Your task to perform on an android device: Open ESPN.com Image 0: 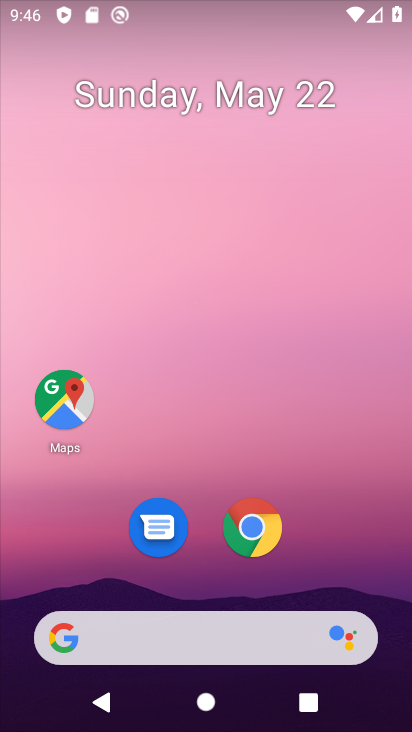
Step 0: click (260, 633)
Your task to perform on an android device: Open ESPN.com Image 1: 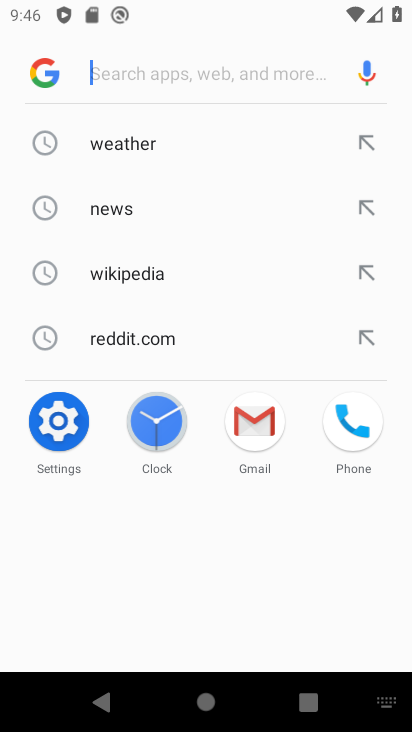
Step 1: type "espn.com"
Your task to perform on an android device: Open ESPN.com Image 2: 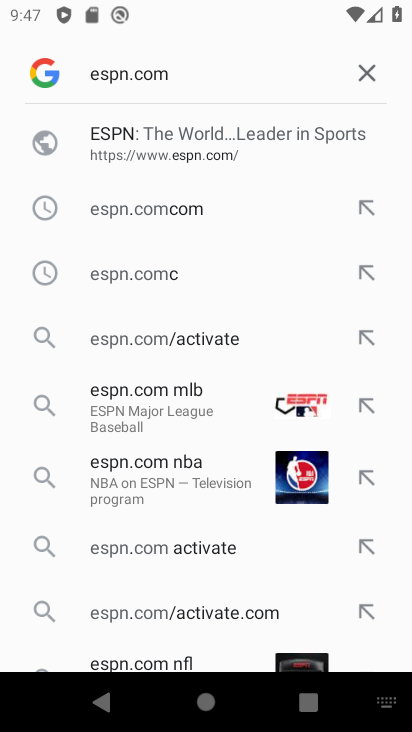
Step 2: click (132, 147)
Your task to perform on an android device: Open ESPN.com Image 3: 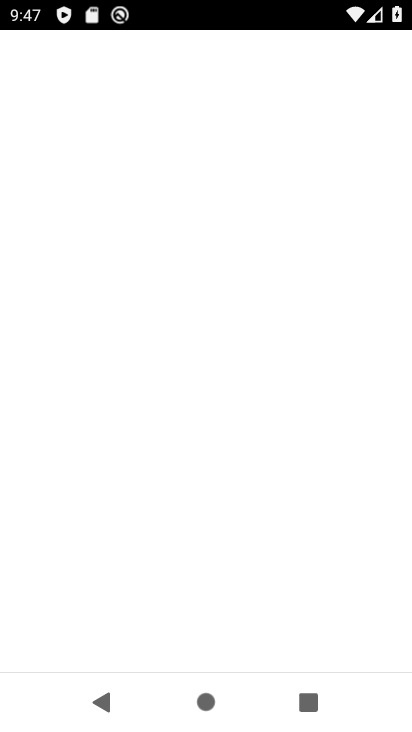
Step 3: task complete